Your task to perform on an android device: read, delete, or share a saved page in the chrome app Image 0: 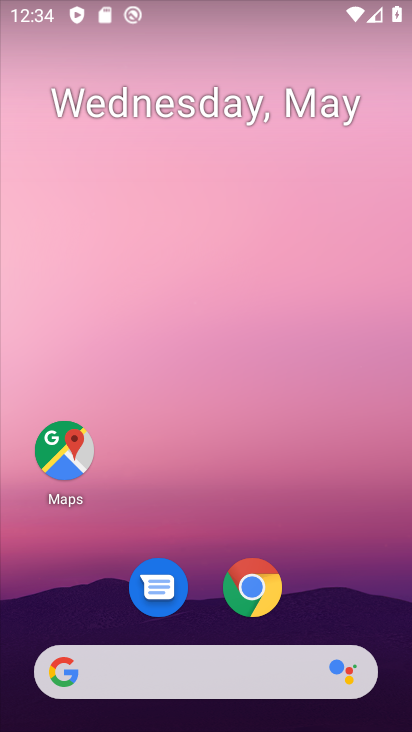
Step 0: click (259, 594)
Your task to perform on an android device: read, delete, or share a saved page in the chrome app Image 1: 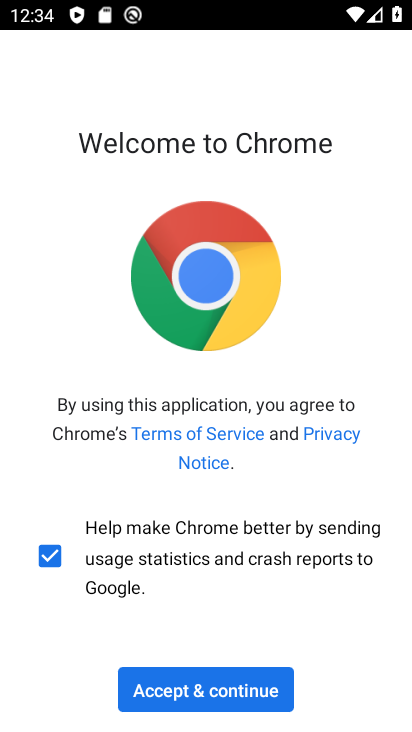
Step 1: click (231, 688)
Your task to perform on an android device: read, delete, or share a saved page in the chrome app Image 2: 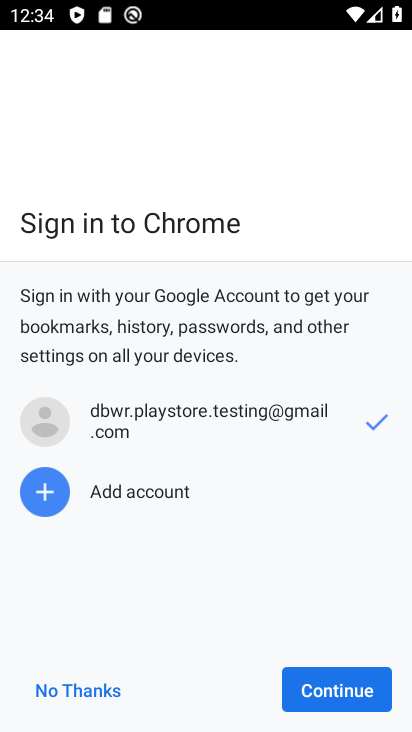
Step 2: click (353, 702)
Your task to perform on an android device: read, delete, or share a saved page in the chrome app Image 3: 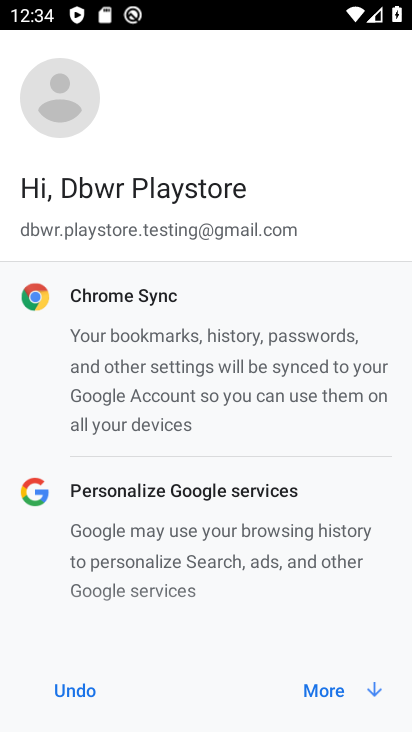
Step 3: click (317, 688)
Your task to perform on an android device: read, delete, or share a saved page in the chrome app Image 4: 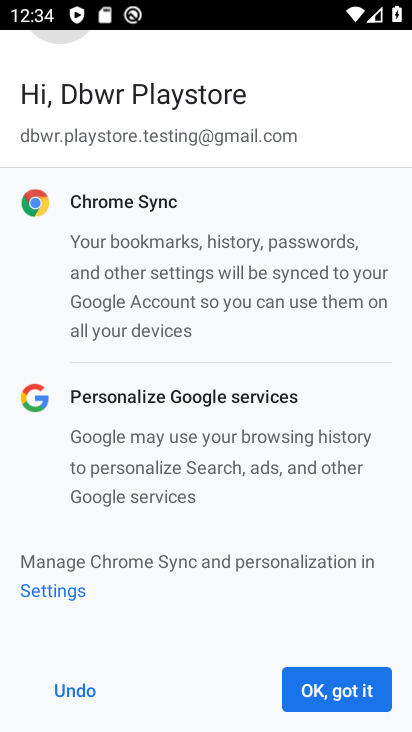
Step 4: click (353, 697)
Your task to perform on an android device: read, delete, or share a saved page in the chrome app Image 5: 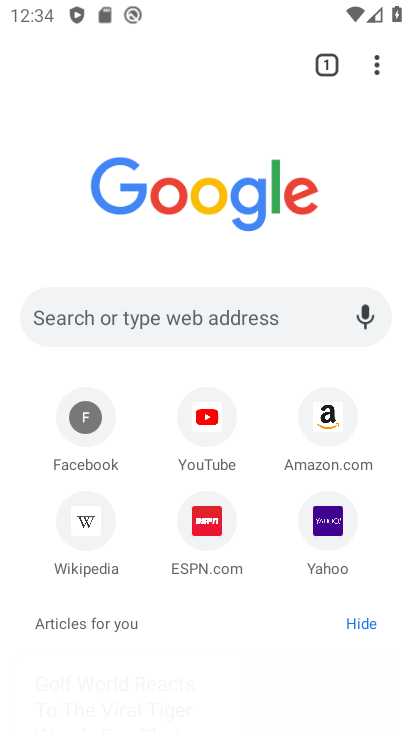
Step 5: click (375, 72)
Your task to perform on an android device: read, delete, or share a saved page in the chrome app Image 6: 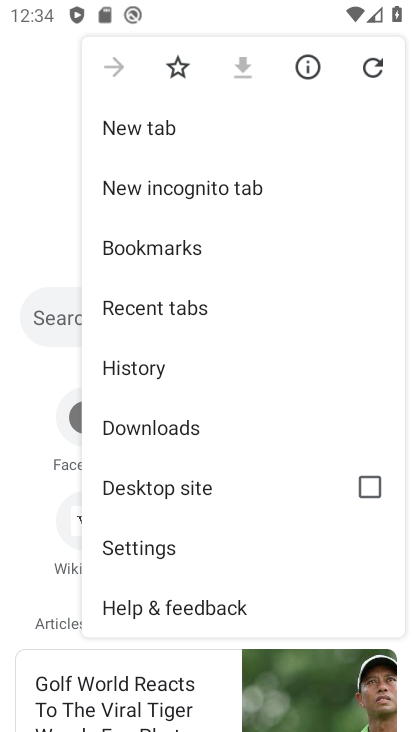
Step 6: click (134, 433)
Your task to perform on an android device: read, delete, or share a saved page in the chrome app Image 7: 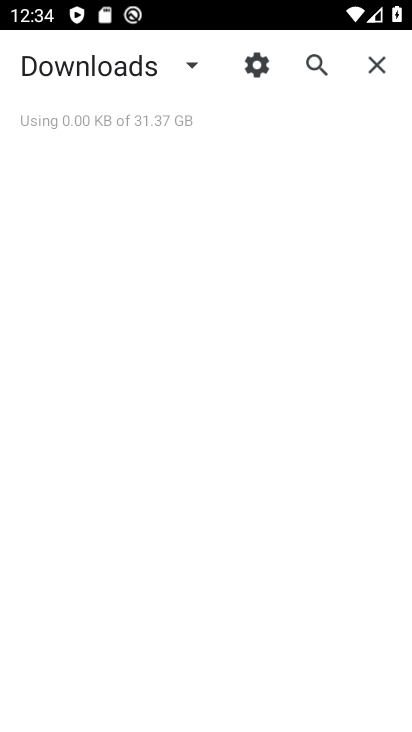
Step 7: click (189, 64)
Your task to perform on an android device: read, delete, or share a saved page in the chrome app Image 8: 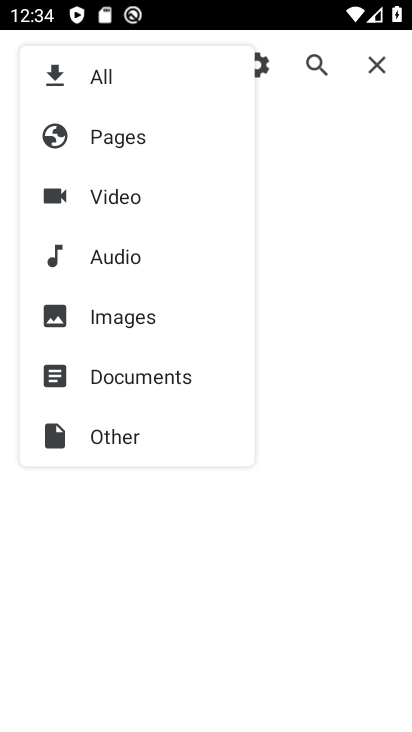
Step 8: click (114, 136)
Your task to perform on an android device: read, delete, or share a saved page in the chrome app Image 9: 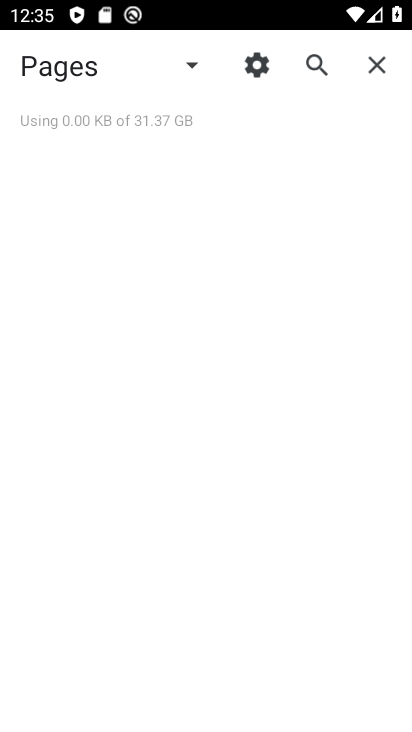
Step 9: task complete